Your task to perform on an android device: check battery use Image 0: 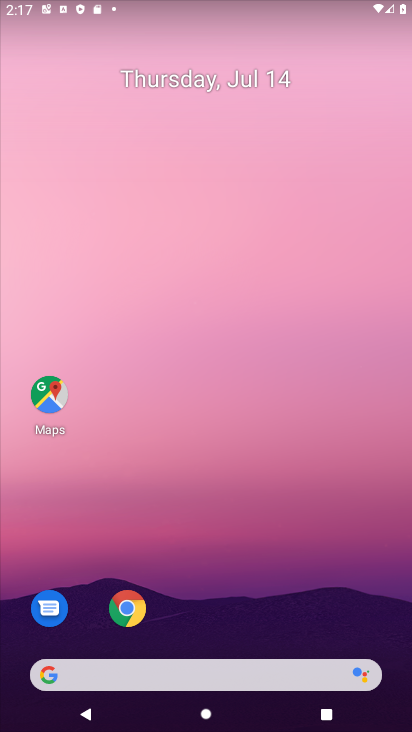
Step 0: drag from (373, 623) to (334, 156)
Your task to perform on an android device: check battery use Image 1: 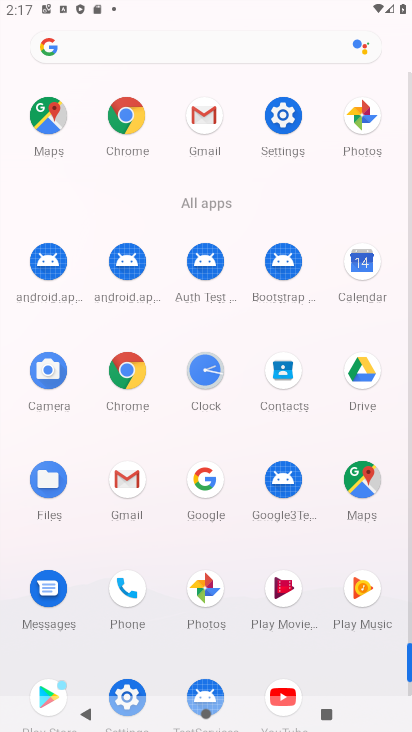
Step 1: click (120, 686)
Your task to perform on an android device: check battery use Image 2: 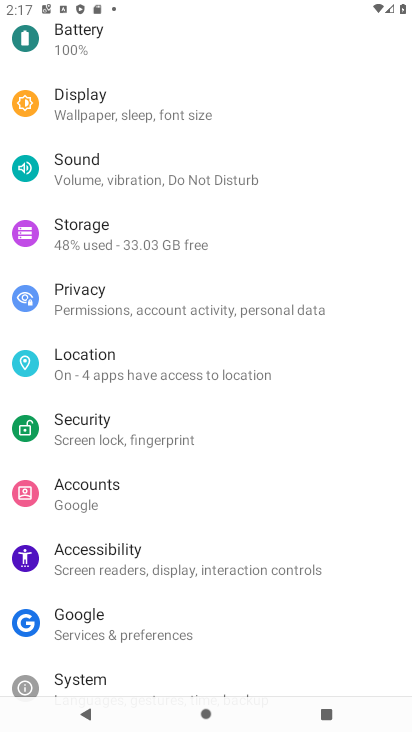
Step 2: drag from (234, 120) to (248, 395)
Your task to perform on an android device: check battery use Image 3: 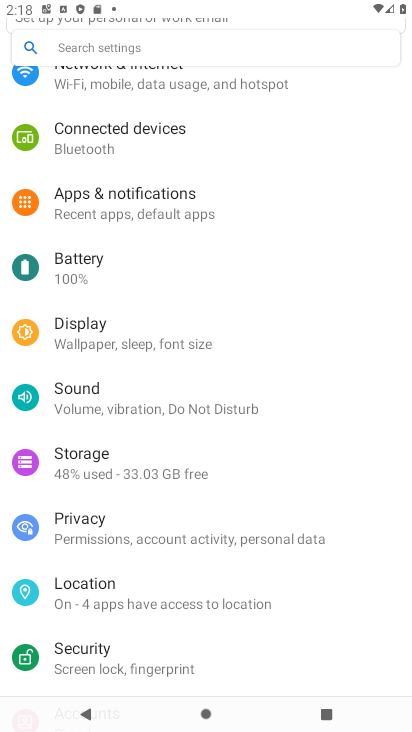
Step 3: click (69, 266)
Your task to perform on an android device: check battery use Image 4: 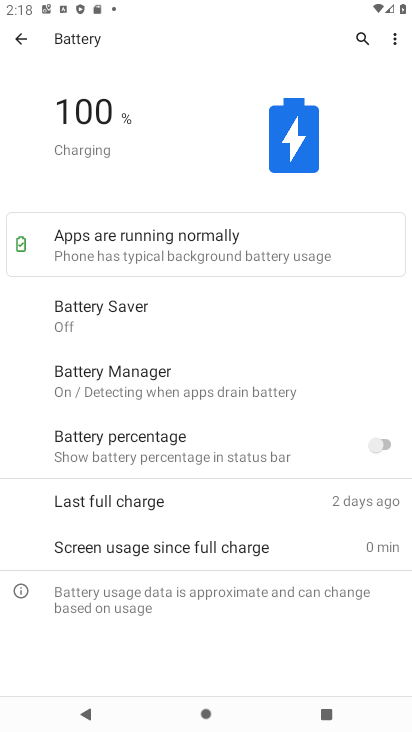
Step 4: click (393, 44)
Your task to perform on an android device: check battery use Image 5: 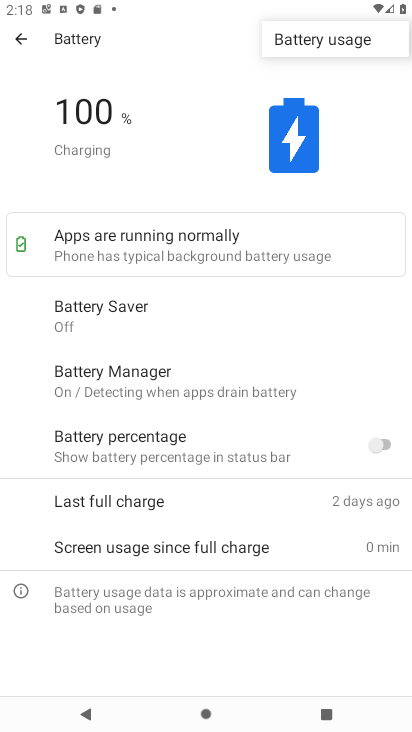
Step 5: click (294, 40)
Your task to perform on an android device: check battery use Image 6: 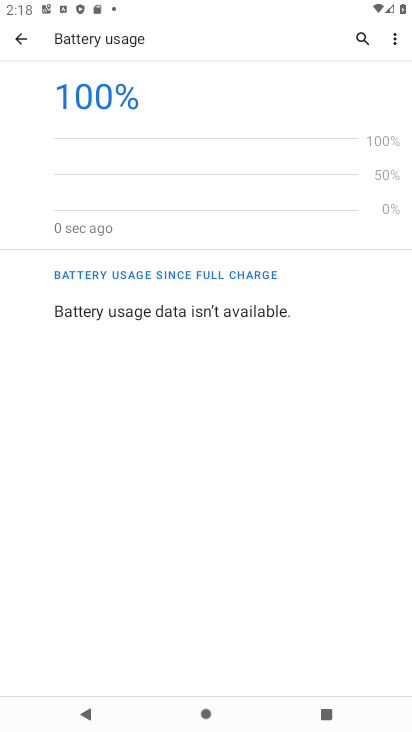
Step 6: task complete